Your task to perform on an android device: Open Amazon Image 0: 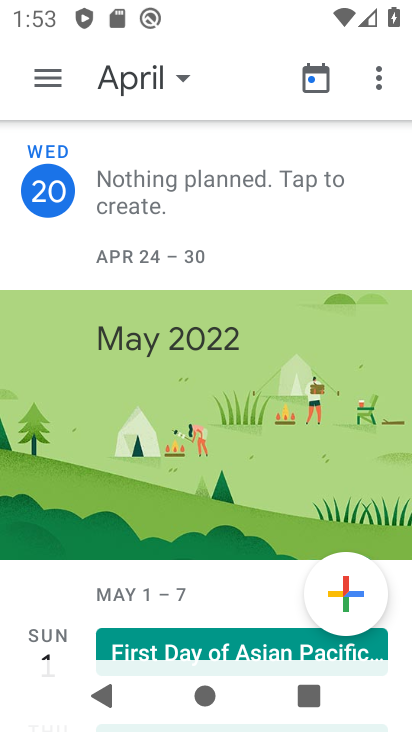
Step 0: press home button
Your task to perform on an android device: Open Amazon Image 1: 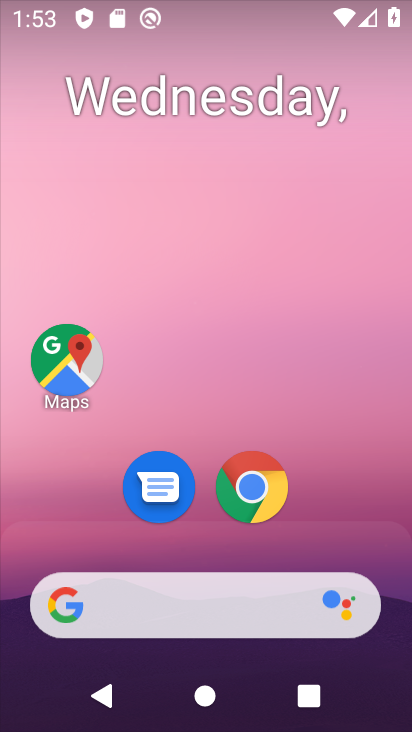
Step 1: drag from (227, 498) to (194, 56)
Your task to perform on an android device: Open Amazon Image 2: 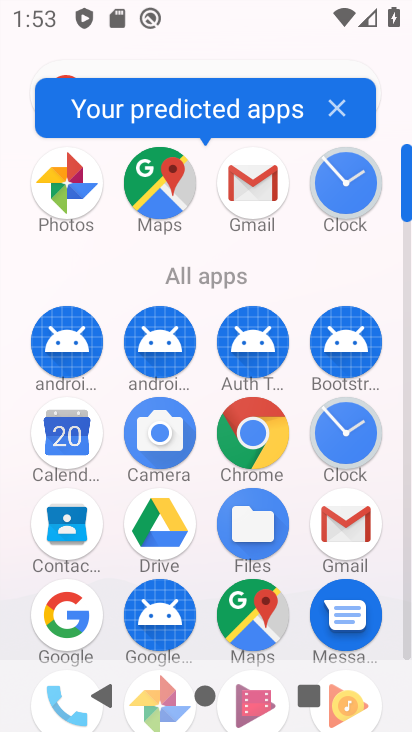
Step 2: click (246, 441)
Your task to perform on an android device: Open Amazon Image 3: 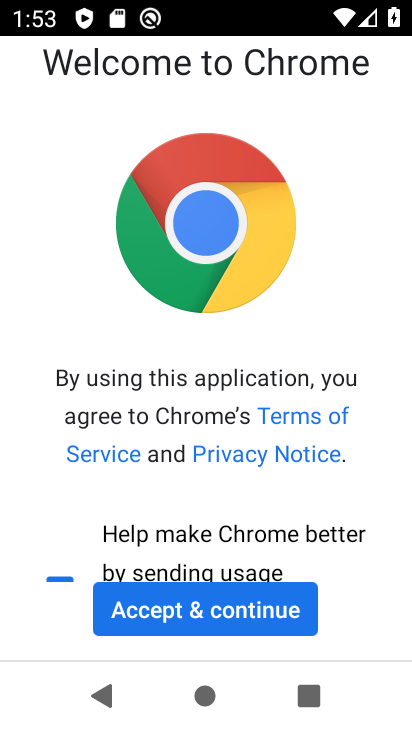
Step 3: click (209, 609)
Your task to perform on an android device: Open Amazon Image 4: 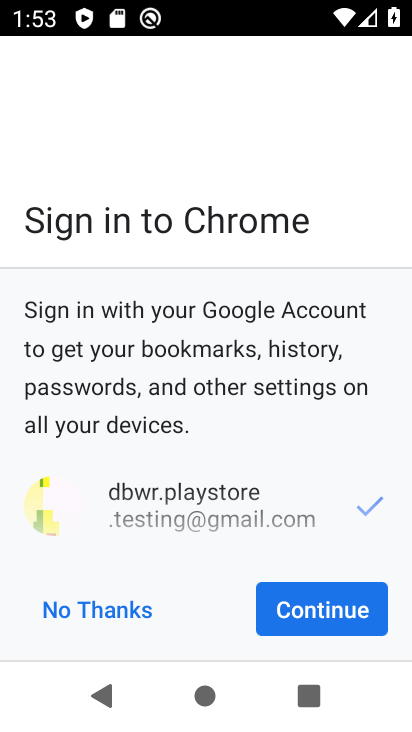
Step 4: click (294, 604)
Your task to perform on an android device: Open Amazon Image 5: 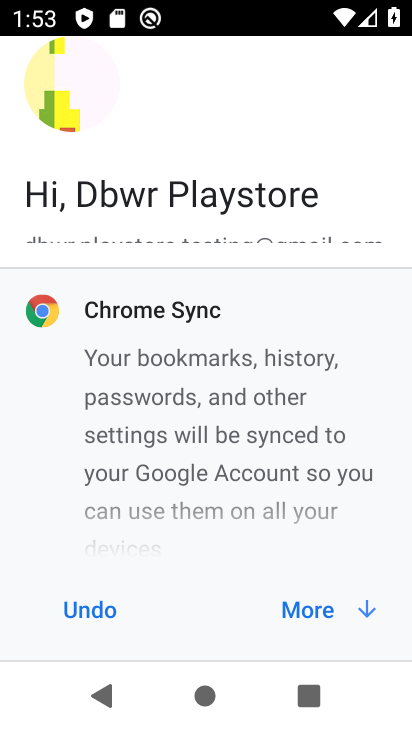
Step 5: click (300, 611)
Your task to perform on an android device: Open Amazon Image 6: 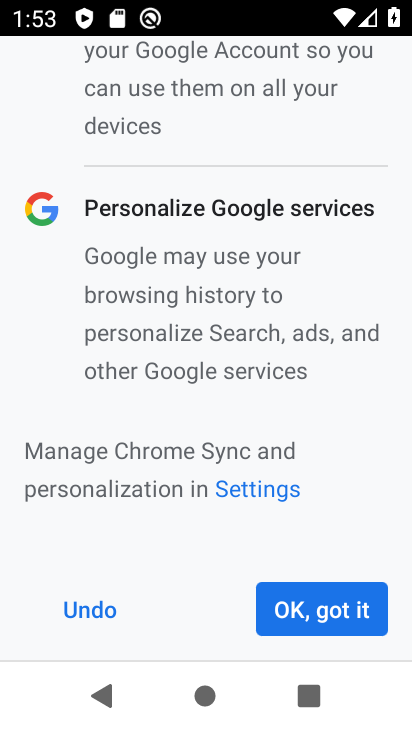
Step 6: click (300, 611)
Your task to perform on an android device: Open Amazon Image 7: 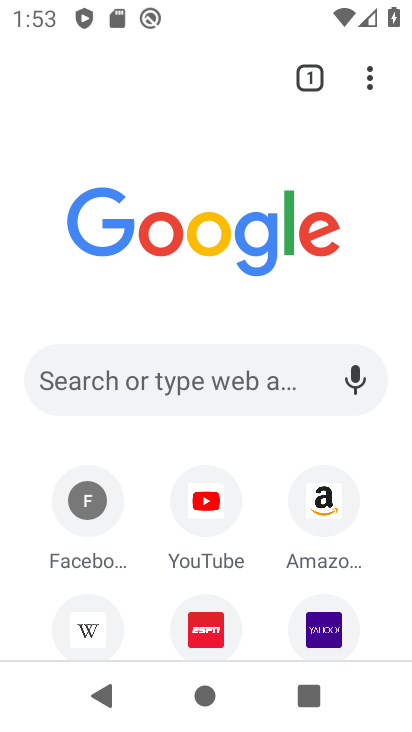
Step 7: click (337, 526)
Your task to perform on an android device: Open Amazon Image 8: 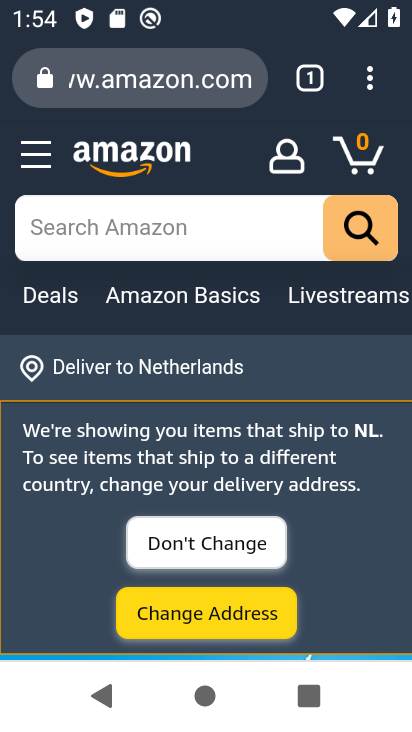
Step 8: task complete